Your task to perform on an android device: Open the Play Movies app and select the watchlist tab. Image 0: 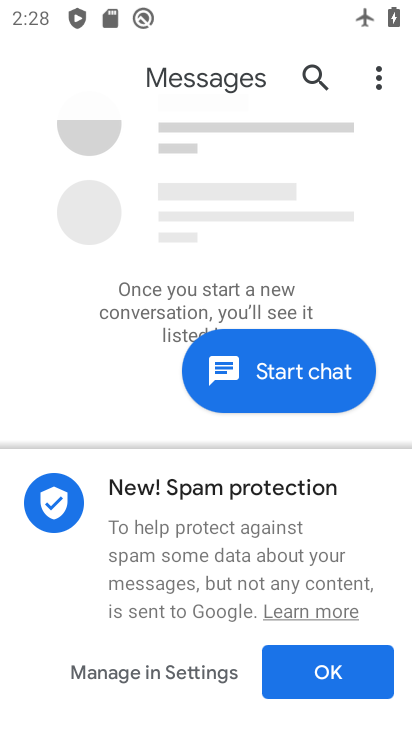
Step 0: press home button
Your task to perform on an android device: Open the Play Movies app and select the watchlist tab. Image 1: 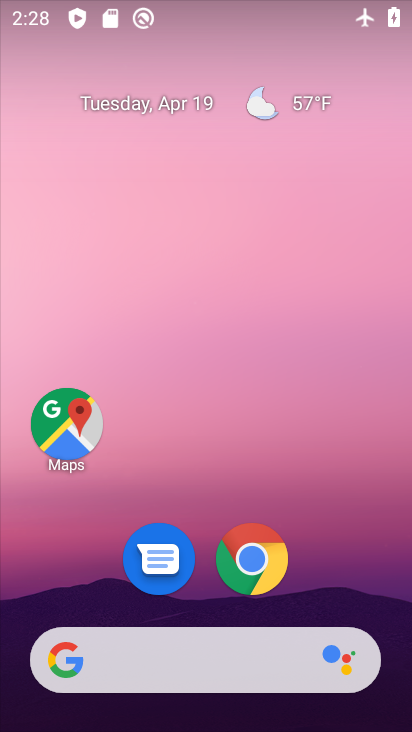
Step 1: drag from (385, 627) to (376, 138)
Your task to perform on an android device: Open the Play Movies app and select the watchlist tab. Image 2: 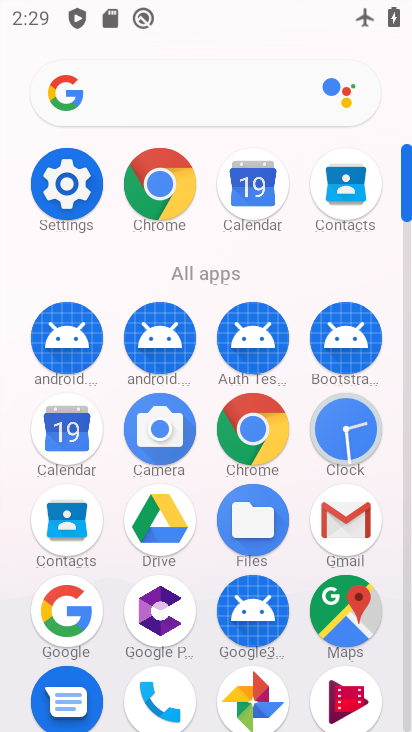
Step 2: drag from (395, 496) to (391, 251)
Your task to perform on an android device: Open the Play Movies app and select the watchlist tab. Image 3: 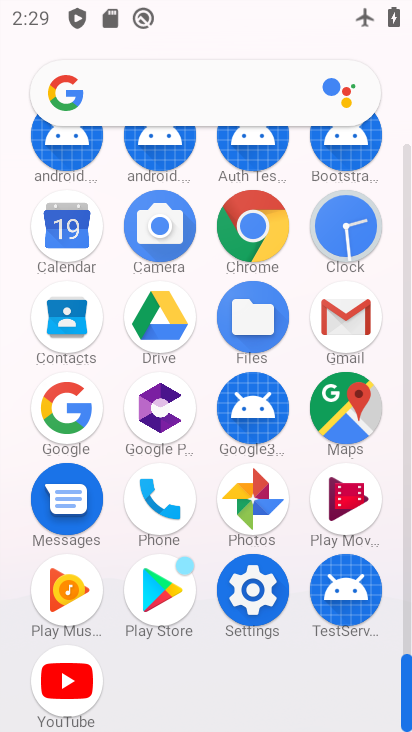
Step 3: click (348, 506)
Your task to perform on an android device: Open the Play Movies app and select the watchlist tab. Image 4: 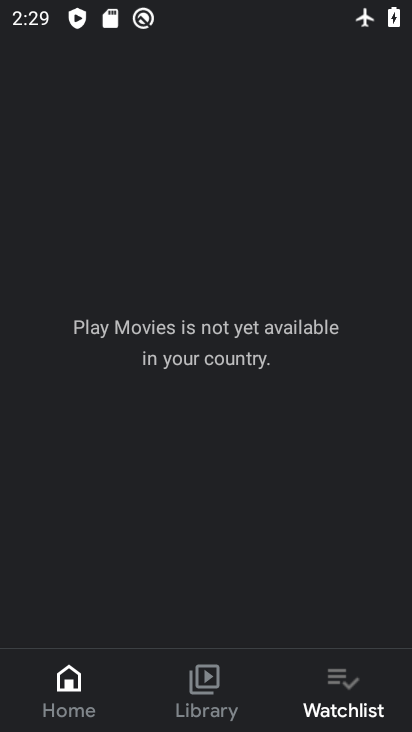
Step 4: task complete